Your task to perform on an android device: Open CNN.com Image 0: 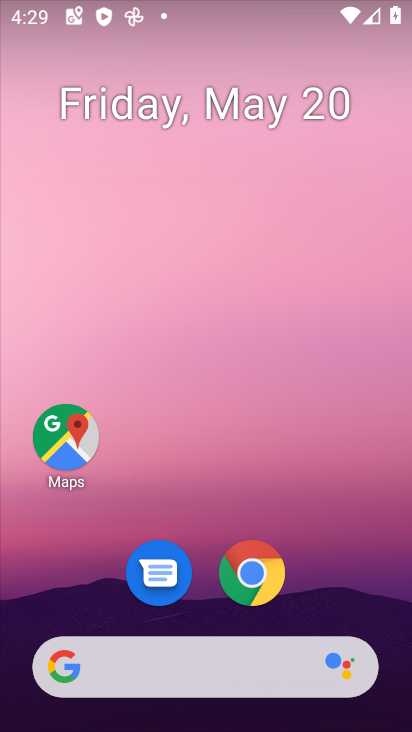
Step 0: click (253, 574)
Your task to perform on an android device: Open CNN.com Image 1: 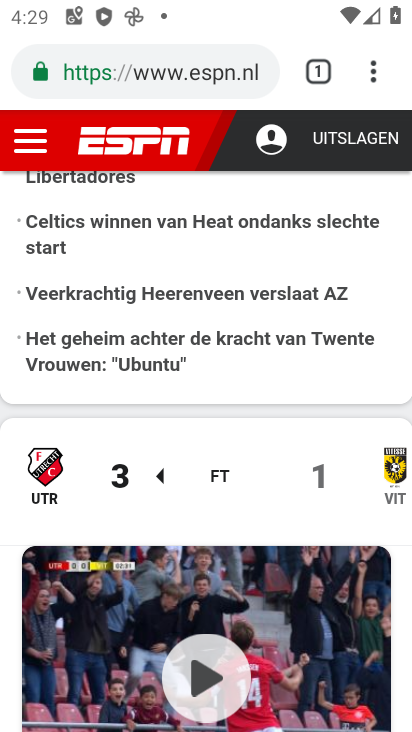
Step 1: click (188, 67)
Your task to perform on an android device: Open CNN.com Image 2: 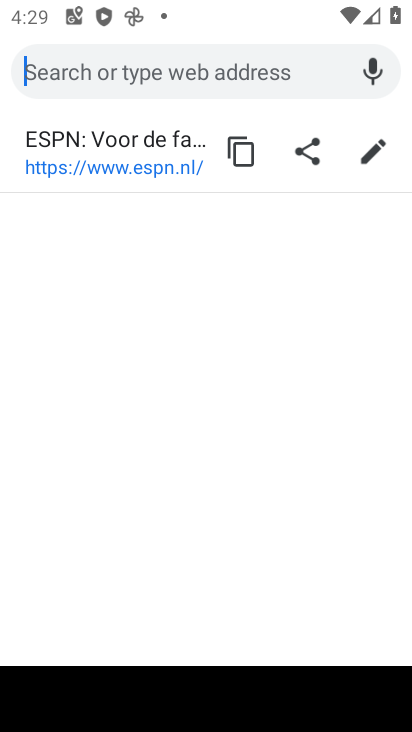
Step 2: type "cnn.com"
Your task to perform on an android device: Open CNN.com Image 3: 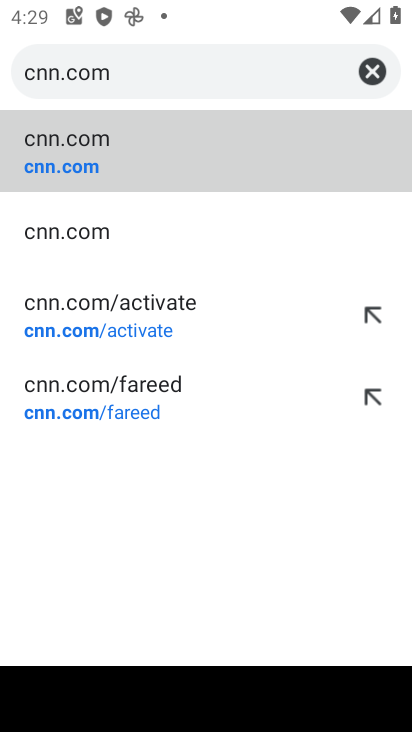
Step 3: click (68, 140)
Your task to perform on an android device: Open CNN.com Image 4: 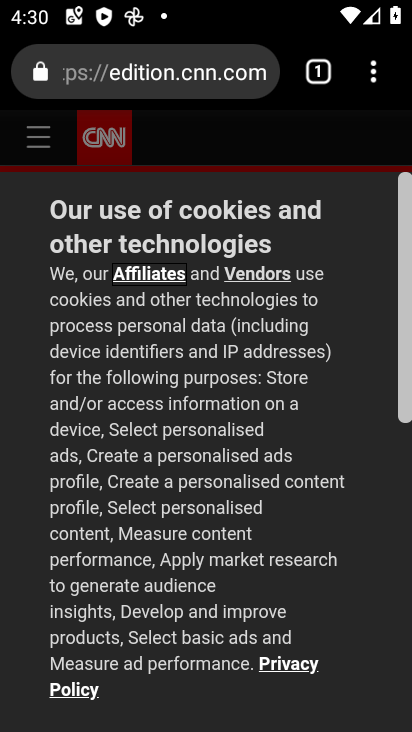
Step 4: task complete